Your task to perform on an android device: Play the last video I watched on Youtube Image 0: 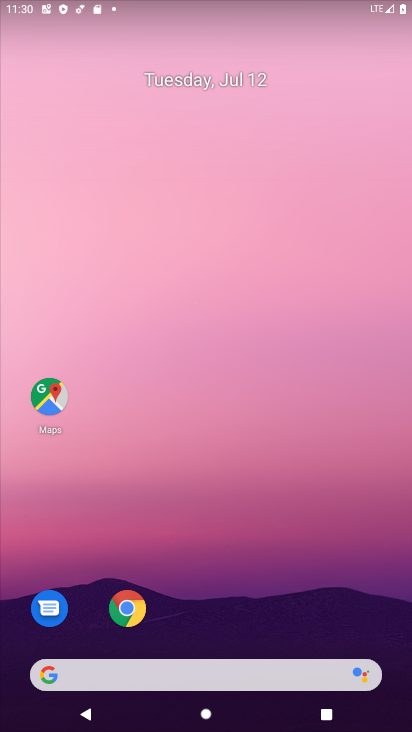
Step 0: drag from (212, 642) to (198, 47)
Your task to perform on an android device: Play the last video I watched on Youtube Image 1: 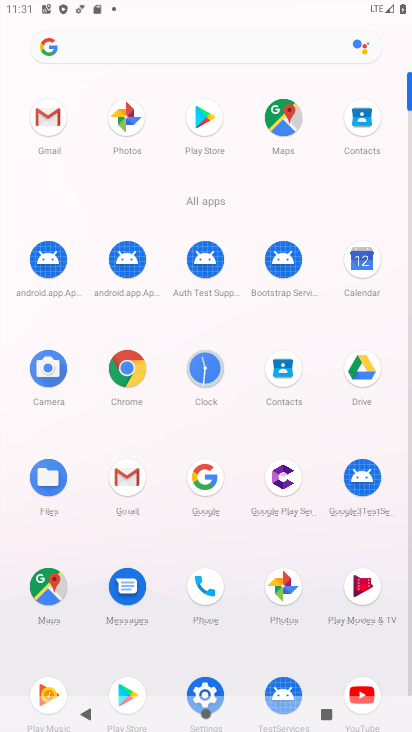
Step 1: click (366, 686)
Your task to perform on an android device: Play the last video I watched on Youtube Image 2: 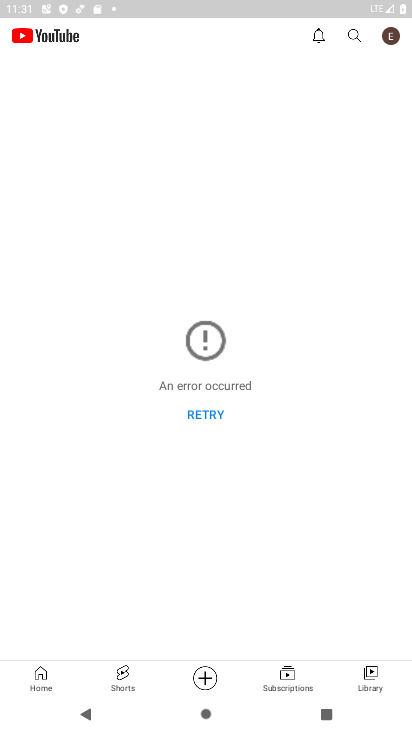
Step 2: click (368, 688)
Your task to perform on an android device: Play the last video I watched on Youtube Image 3: 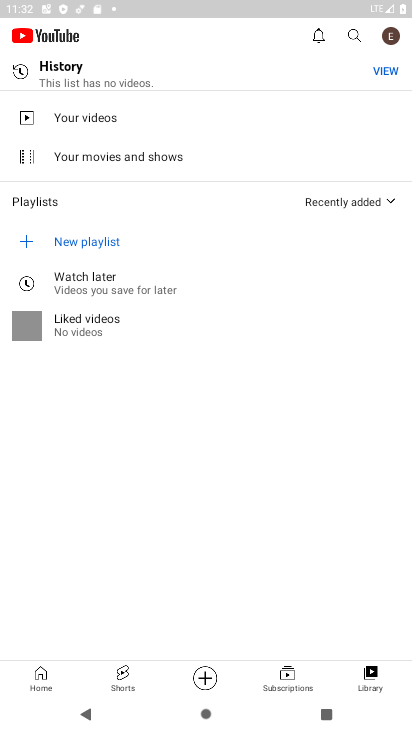
Step 3: task complete